Your task to perform on an android device: Show me recent news Image 0: 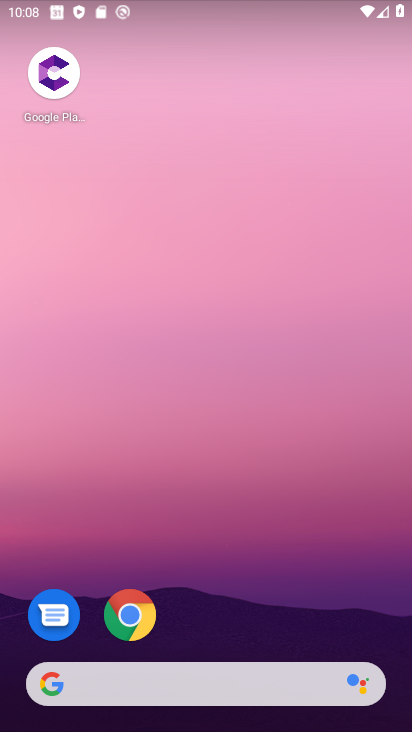
Step 0: drag from (7, 356) to (359, 369)
Your task to perform on an android device: Show me recent news Image 1: 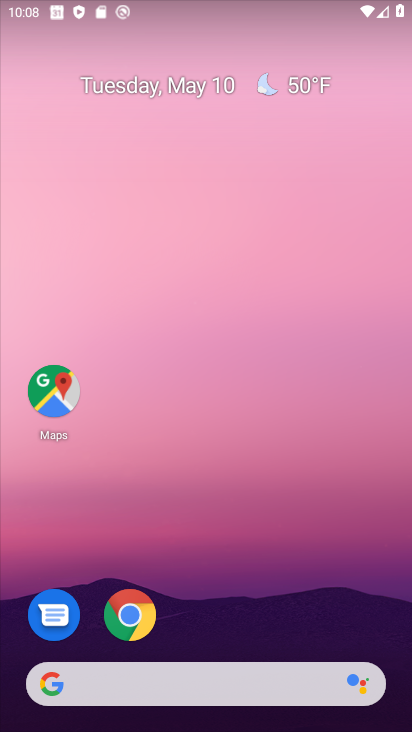
Step 1: task complete